Your task to perform on an android device: star an email in the gmail app Image 0: 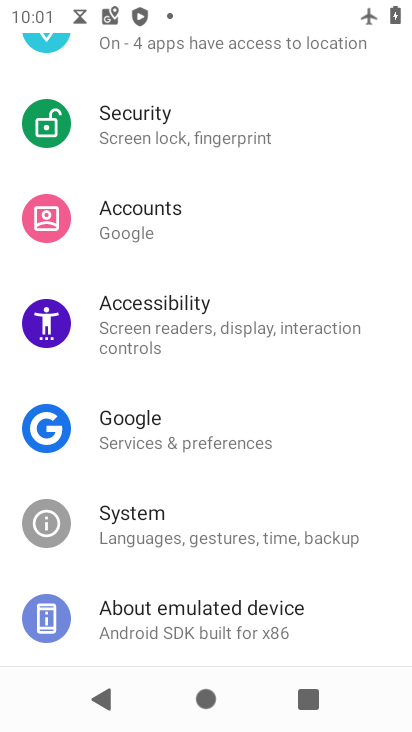
Step 0: press home button
Your task to perform on an android device: star an email in the gmail app Image 1: 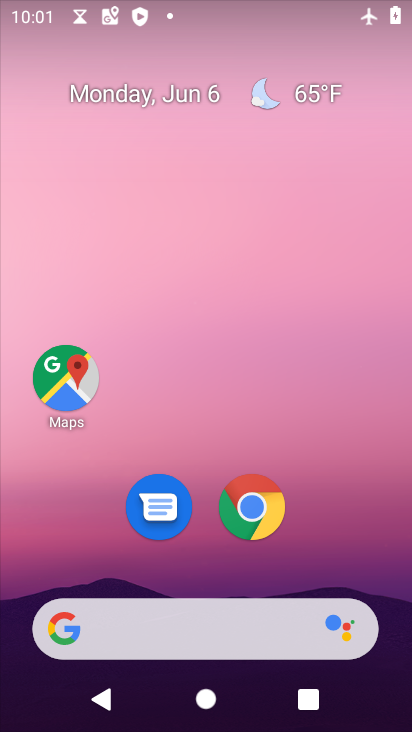
Step 1: drag from (309, 570) to (356, 191)
Your task to perform on an android device: star an email in the gmail app Image 2: 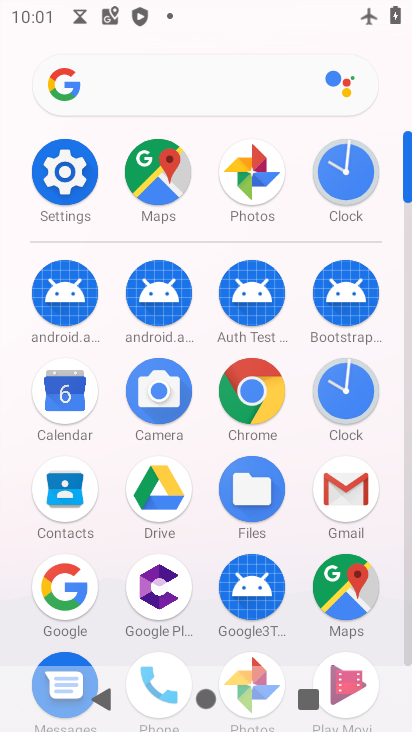
Step 2: click (350, 468)
Your task to perform on an android device: star an email in the gmail app Image 3: 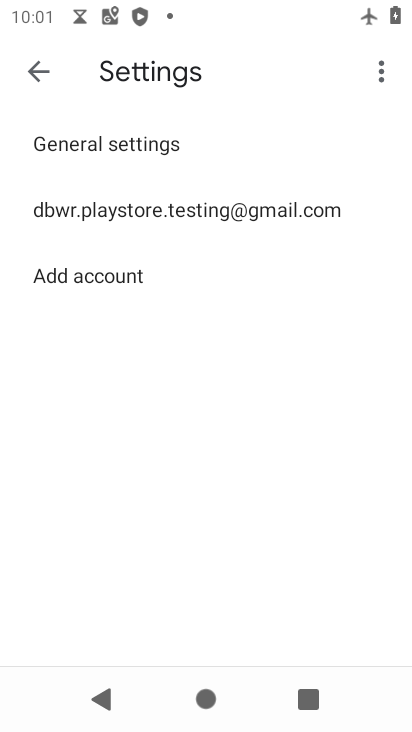
Step 3: click (52, 72)
Your task to perform on an android device: star an email in the gmail app Image 4: 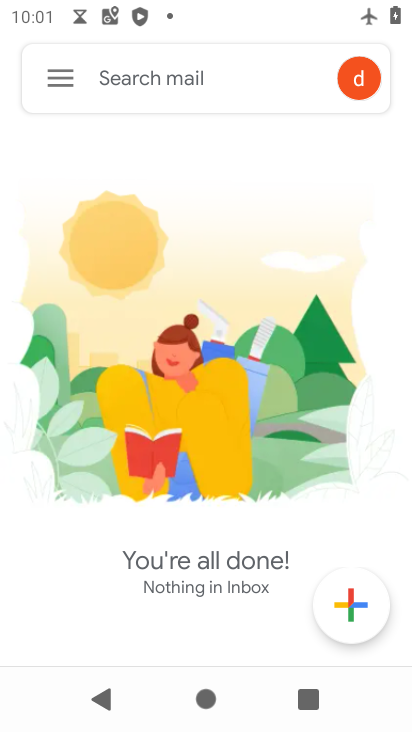
Step 4: click (64, 81)
Your task to perform on an android device: star an email in the gmail app Image 5: 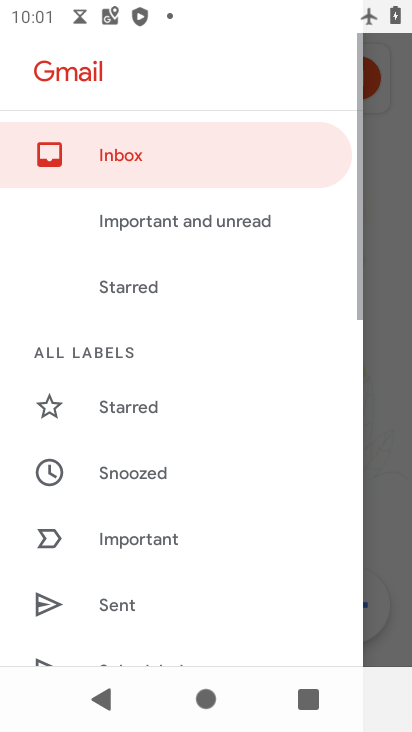
Step 5: click (134, 415)
Your task to perform on an android device: star an email in the gmail app Image 6: 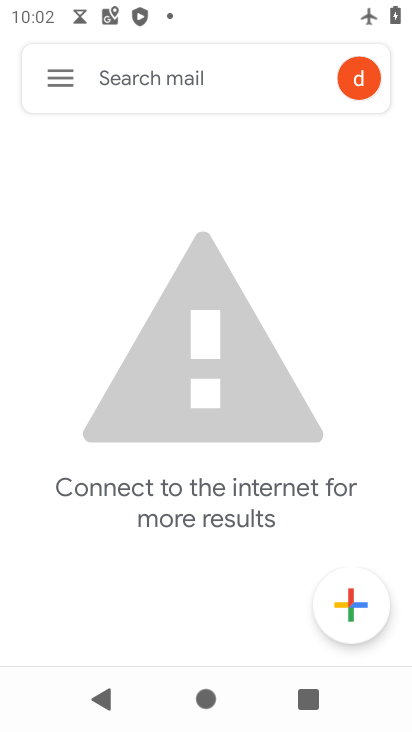
Step 6: task complete